Your task to perform on an android device: Go to Google maps Image 0: 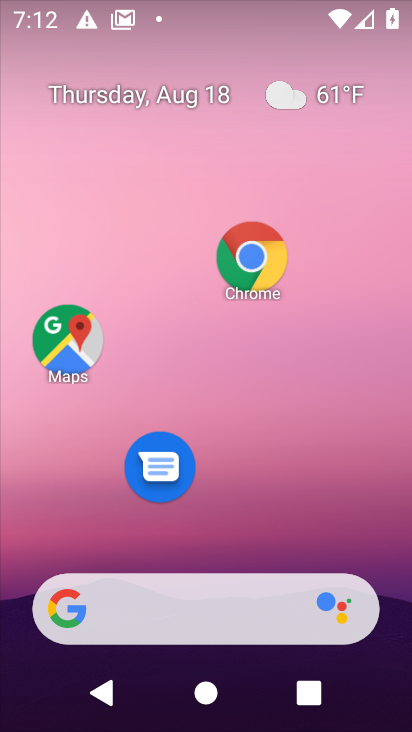
Step 0: drag from (274, 528) to (320, 179)
Your task to perform on an android device: Go to Google maps Image 1: 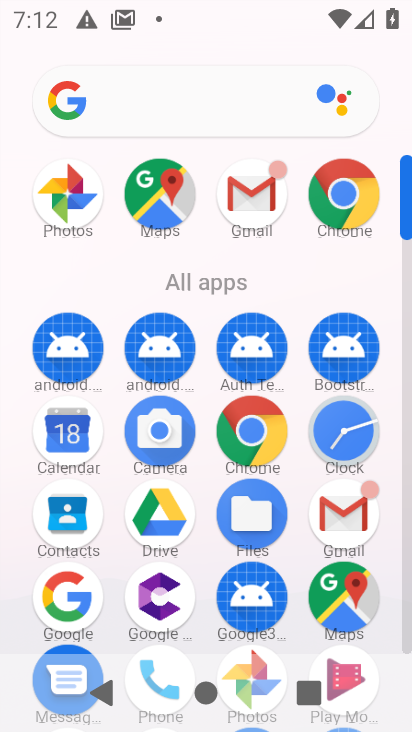
Step 1: task complete